Your task to perform on an android device: turn notification dots on Image 0: 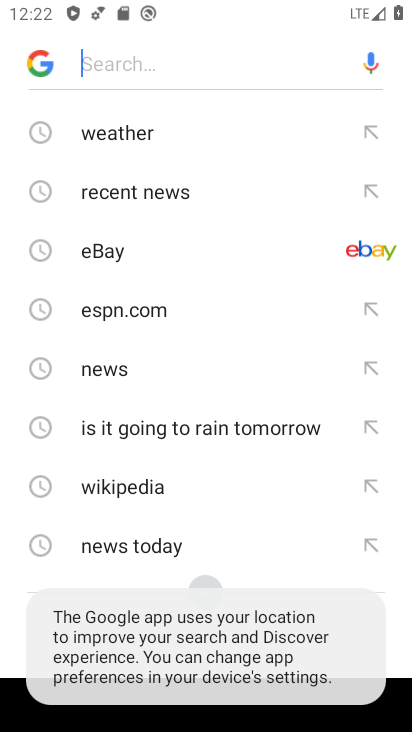
Step 0: press back button
Your task to perform on an android device: turn notification dots on Image 1: 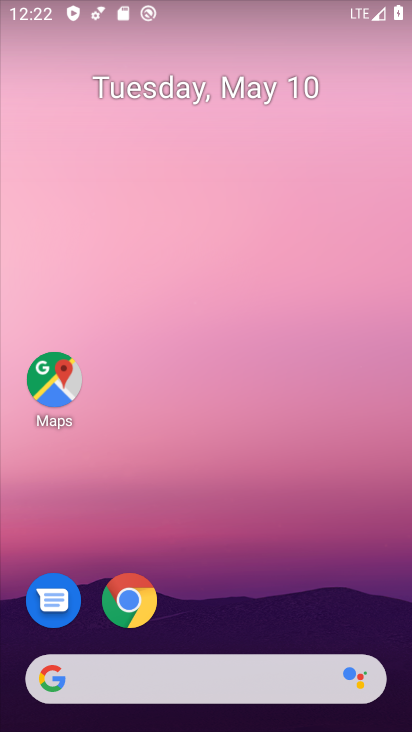
Step 1: drag from (195, 646) to (319, 77)
Your task to perform on an android device: turn notification dots on Image 2: 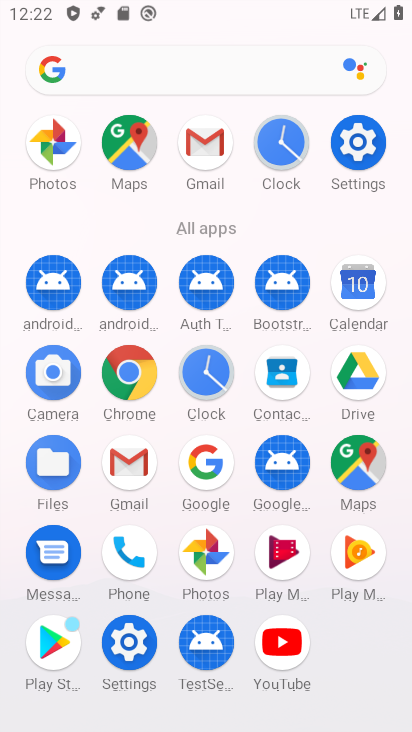
Step 2: click (137, 646)
Your task to perform on an android device: turn notification dots on Image 3: 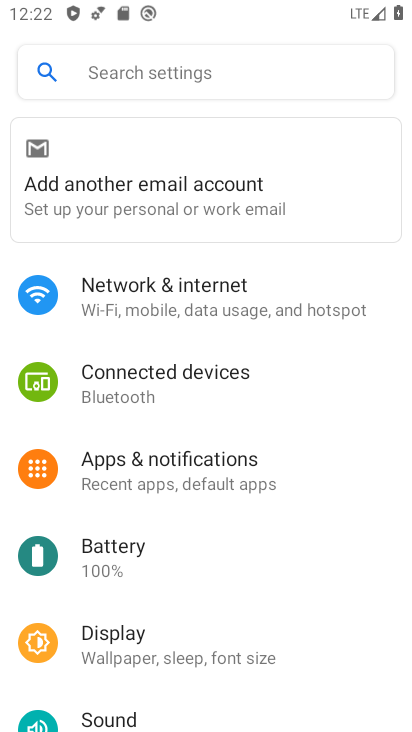
Step 3: click (241, 496)
Your task to perform on an android device: turn notification dots on Image 4: 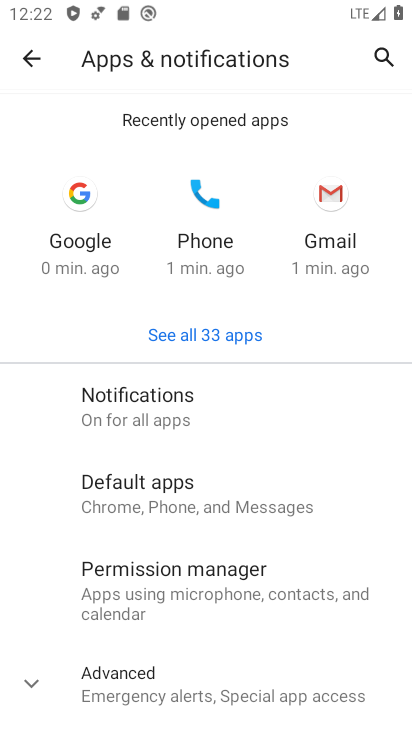
Step 4: drag from (188, 650) to (264, 428)
Your task to perform on an android device: turn notification dots on Image 5: 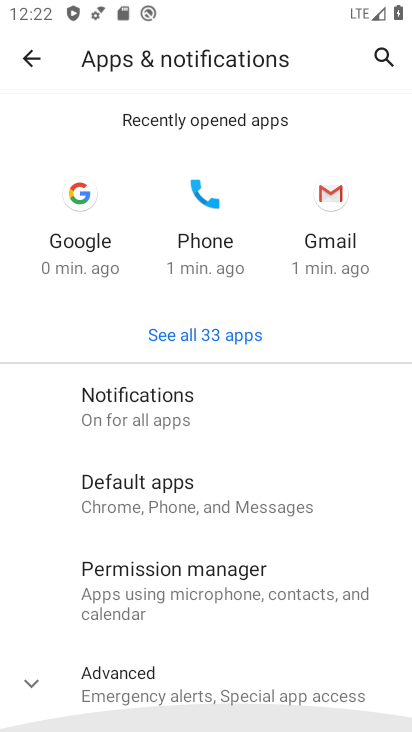
Step 5: click (241, 405)
Your task to perform on an android device: turn notification dots on Image 6: 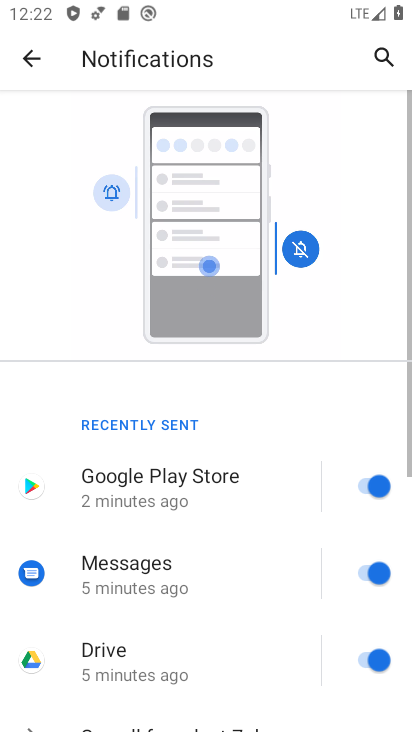
Step 6: drag from (181, 649) to (321, 228)
Your task to perform on an android device: turn notification dots on Image 7: 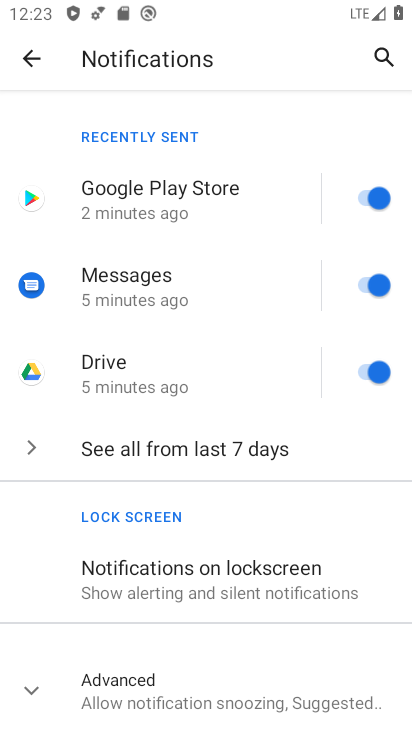
Step 7: click (200, 669)
Your task to perform on an android device: turn notification dots on Image 8: 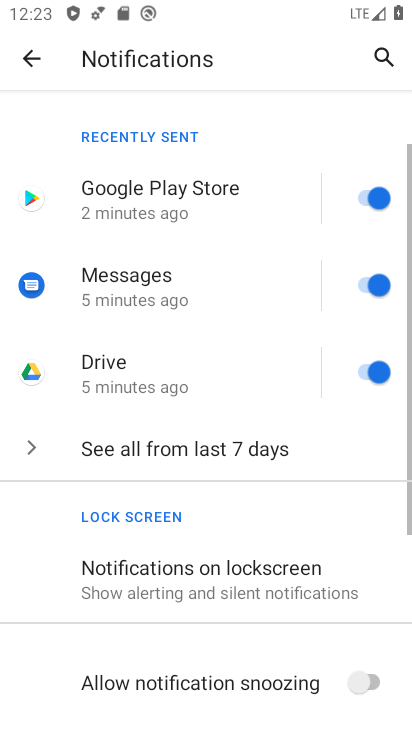
Step 8: task complete